Your task to perform on an android device: Open the map Image 0: 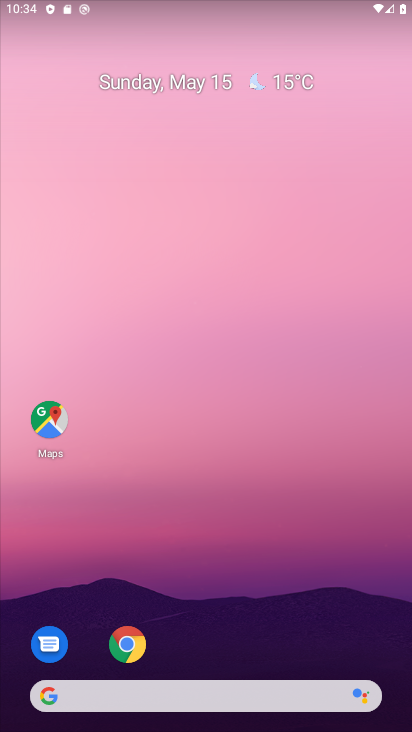
Step 0: click (51, 421)
Your task to perform on an android device: Open the map Image 1: 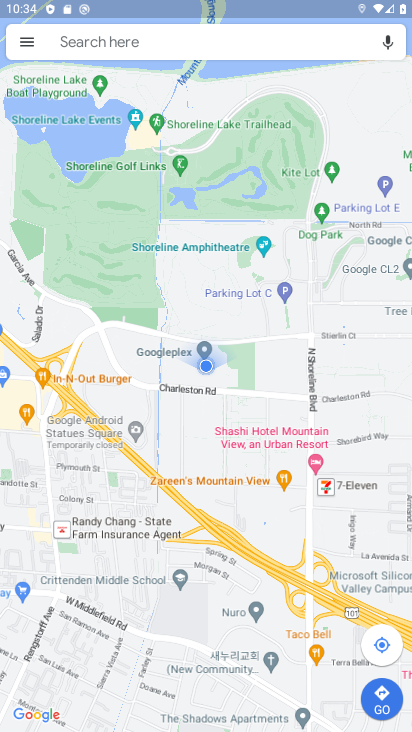
Step 1: press home button
Your task to perform on an android device: Open the map Image 2: 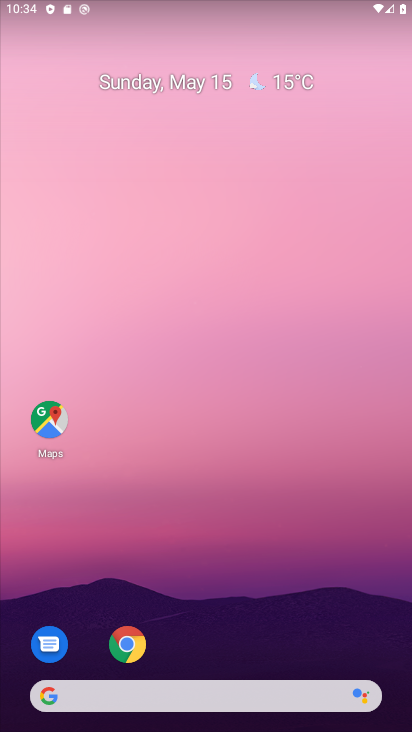
Step 2: click (55, 414)
Your task to perform on an android device: Open the map Image 3: 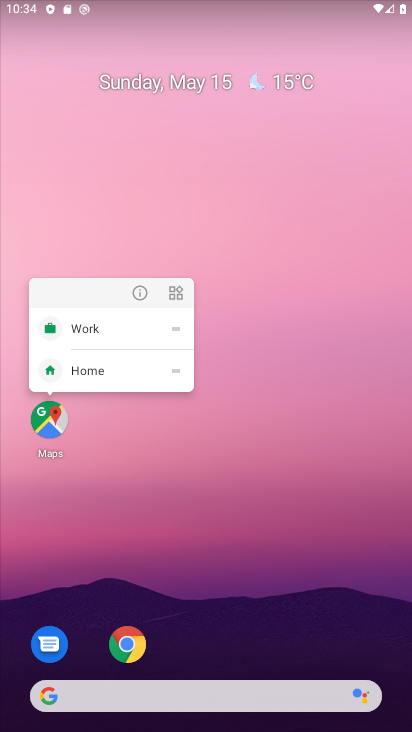
Step 3: click (47, 427)
Your task to perform on an android device: Open the map Image 4: 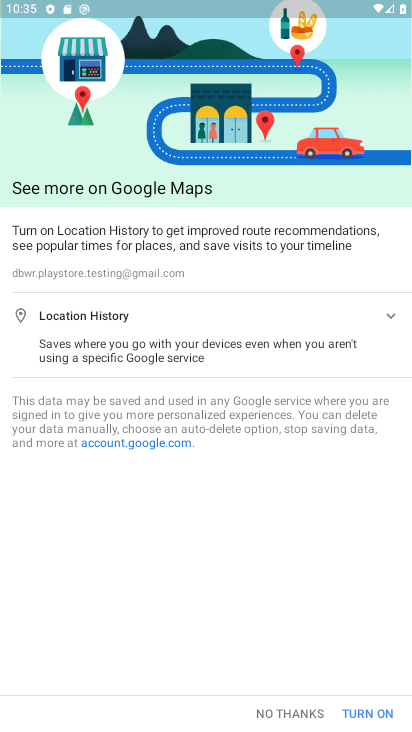
Step 4: click (286, 711)
Your task to perform on an android device: Open the map Image 5: 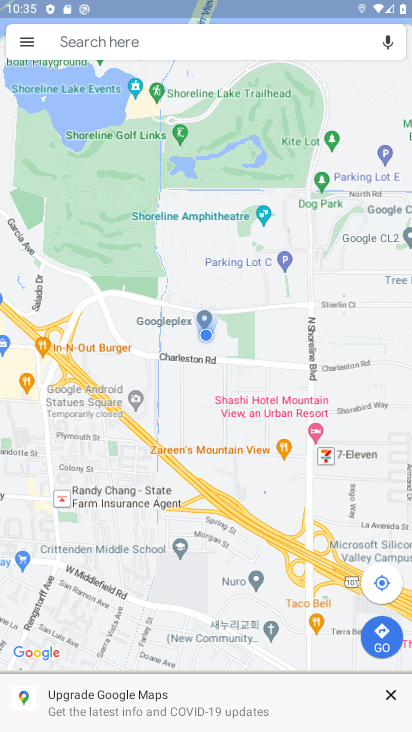
Step 5: task complete